Your task to perform on an android device: open device folders in google photos Image 0: 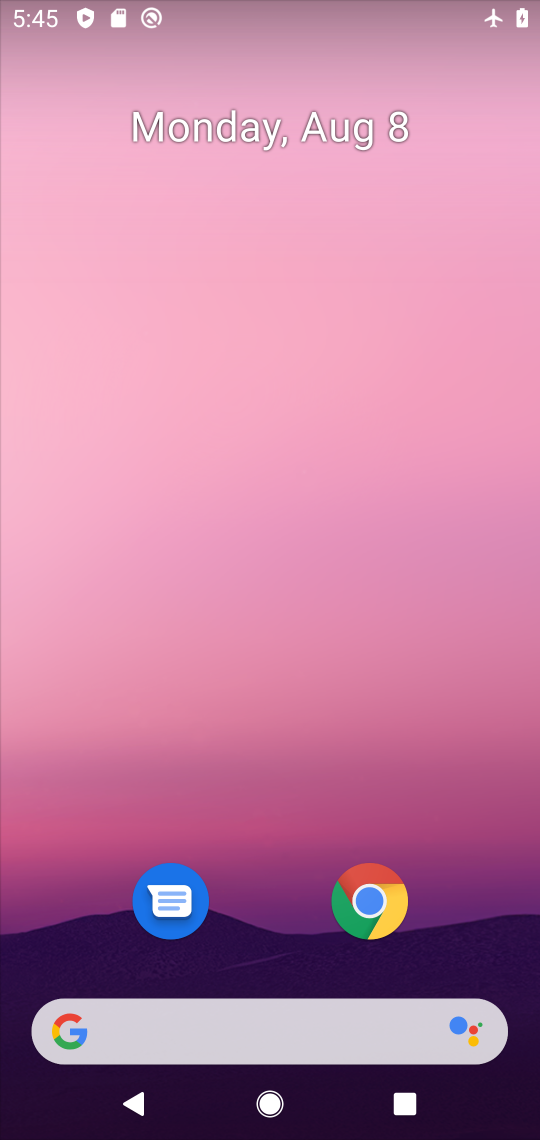
Step 0: drag from (504, 913) to (279, 145)
Your task to perform on an android device: open device folders in google photos Image 1: 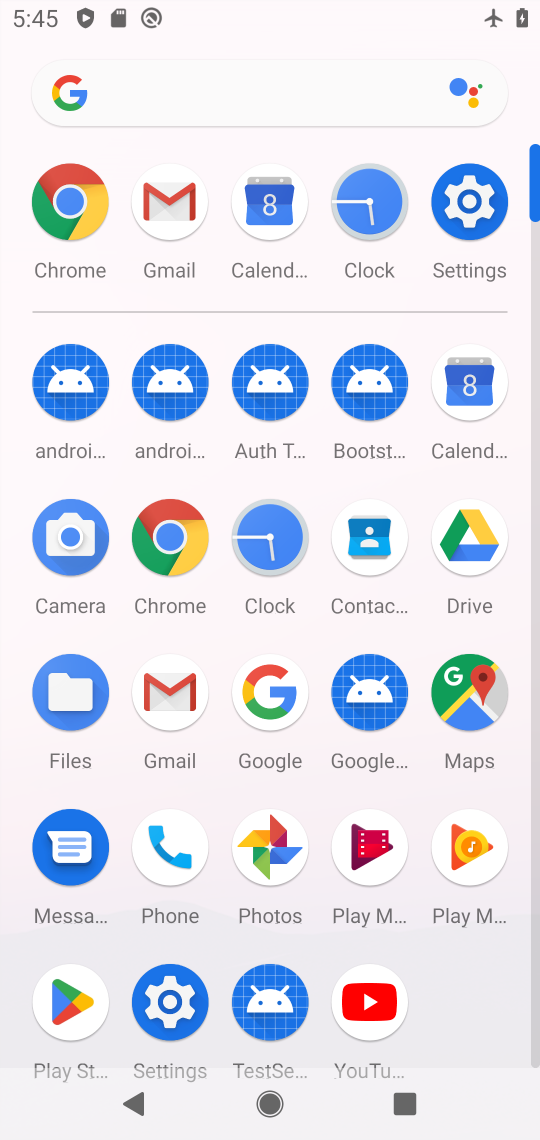
Step 1: click (277, 864)
Your task to perform on an android device: open device folders in google photos Image 2: 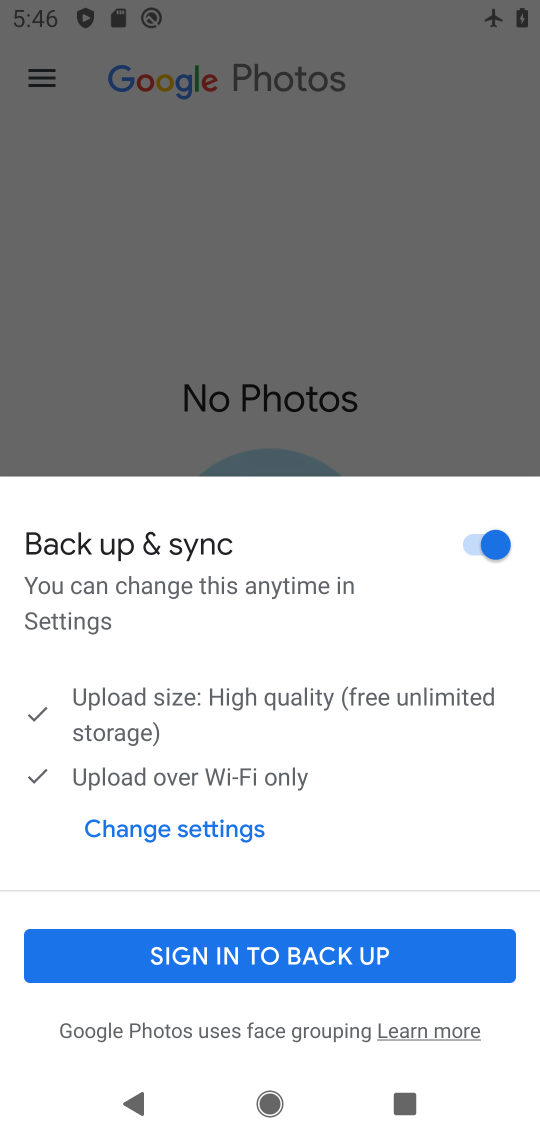
Step 2: click (410, 961)
Your task to perform on an android device: open device folders in google photos Image 3: 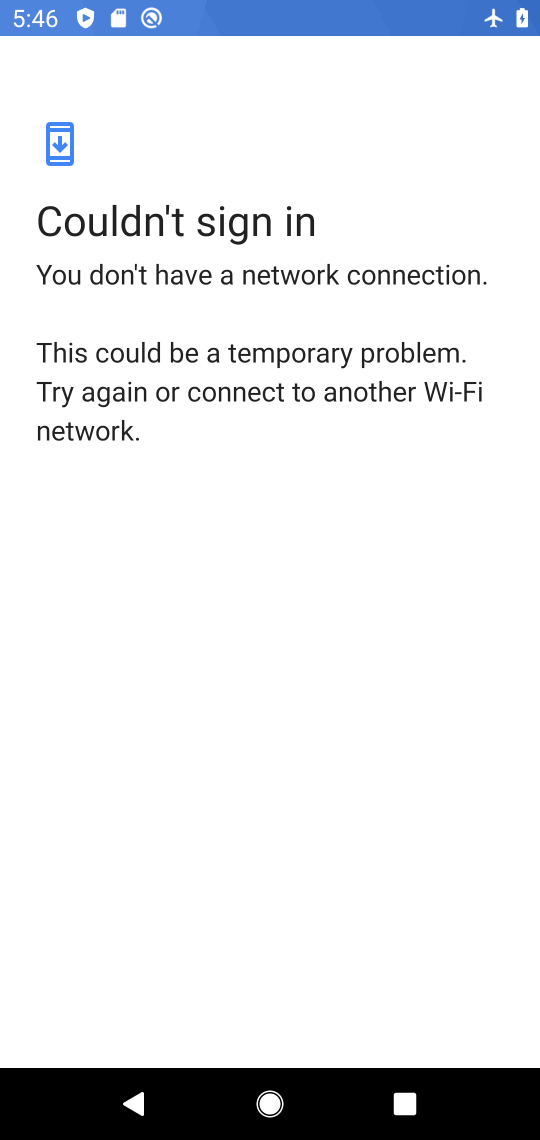
Step 3: task complete